Your task to perform on an android device: see sites visited before in the chrome app Image 0: 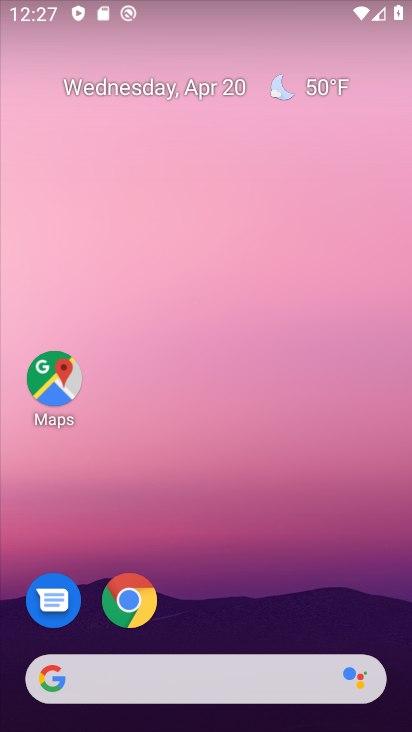
Step 0: click (126, 609)
Your task to perform on an android device: see sites visited before in the chrome app Image 1: 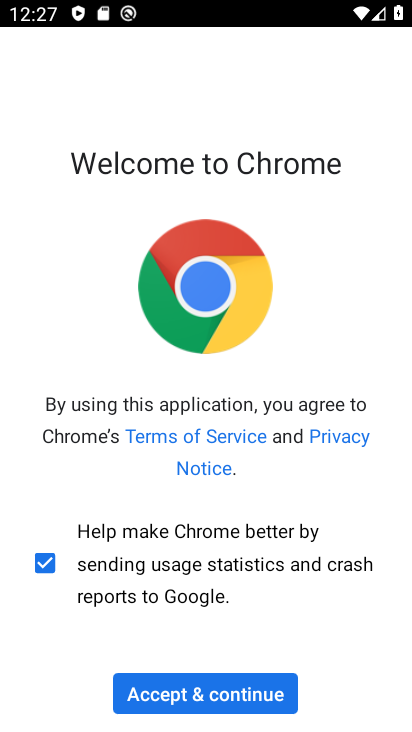
Step 1: click (239, 704)
Your task to perform on an android device: see sites visited before in the chrome app Image 2: 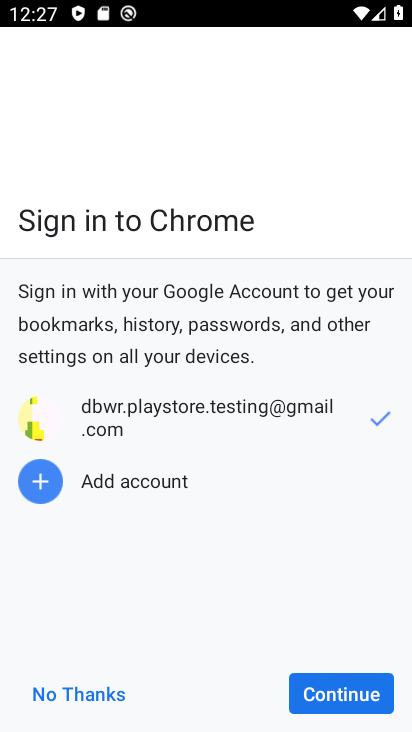
Step 2: click (343, 702)
Your task to perform on an android device: see sites visited before in the chrome app Image 3: 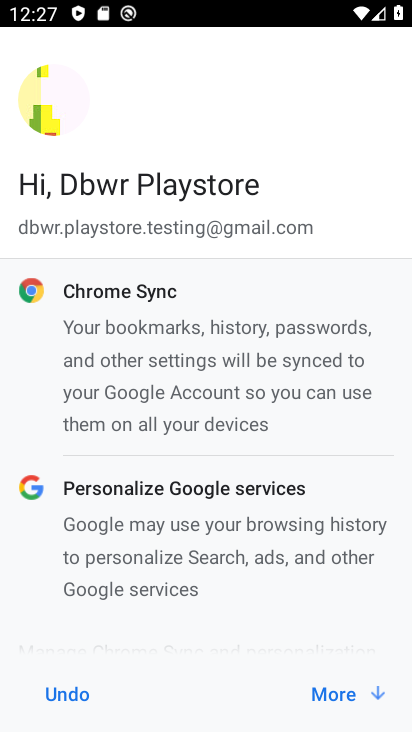
Step 3: click (363, 681)
Your task to perform on an android device: see sites visited before in the chrome app Image 4: 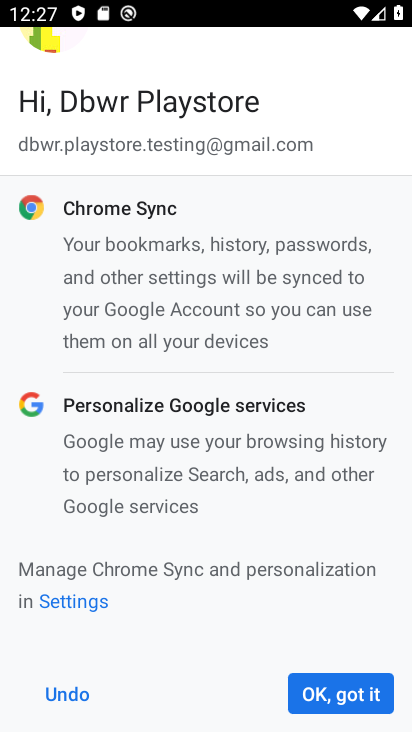
Step 4: click (343, 702)
Your task to perform on an android device: see sites visited before in the chrome app Image 5: 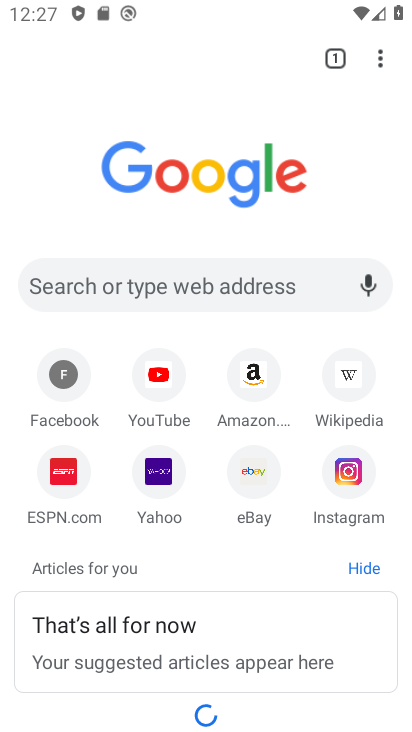
Step 5: click (379, 53)
Your task to perform on an android device: see sites visited before in the chrome app Image 6: 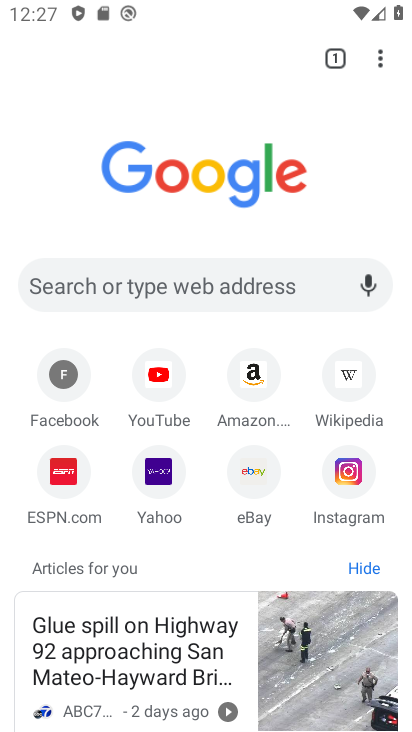
Step 6: click (386, 64)
Your task to perform on an android device: see sites visited before in the chrome app Image 7: 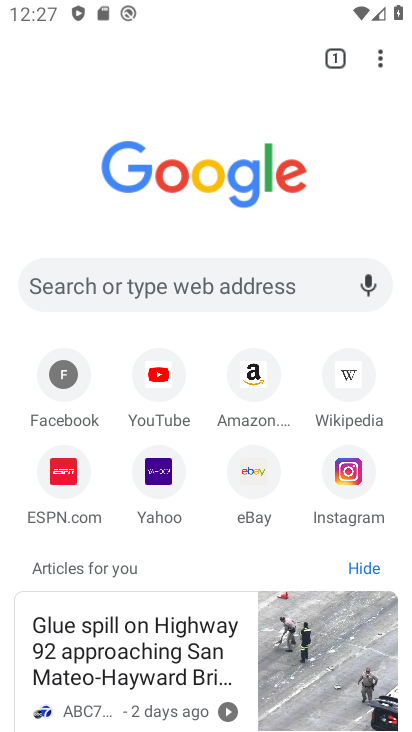
Step 7: task complete